Your task to perform on an android device: Open the Play Movies app and select the watchlist tab. Image 0: 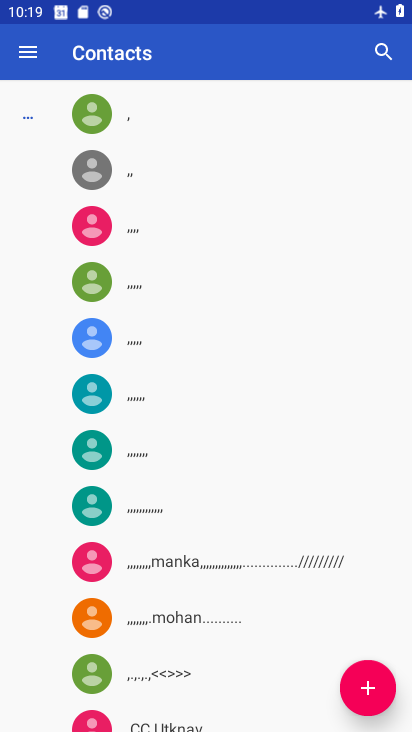
Step 0: drag from (155, 664) to (220, 270)
Your task to perform on an android device: Open the Play Movies app and select the watchlist tab. Image 1: 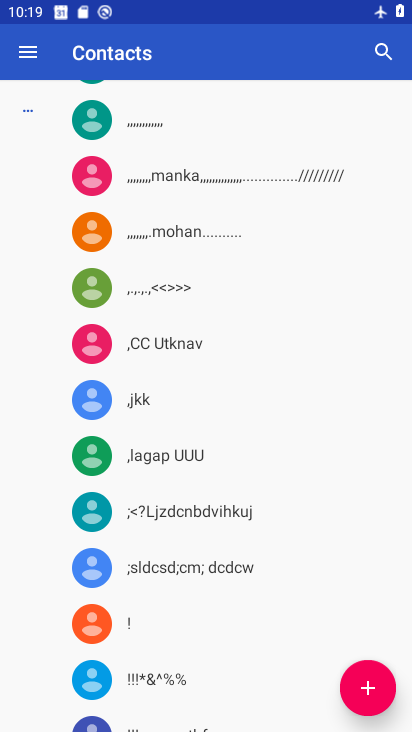
Step 1: press home button
Your task to perform on an android device: Open the Play Movies app and select the watchlist tab. Image 2: 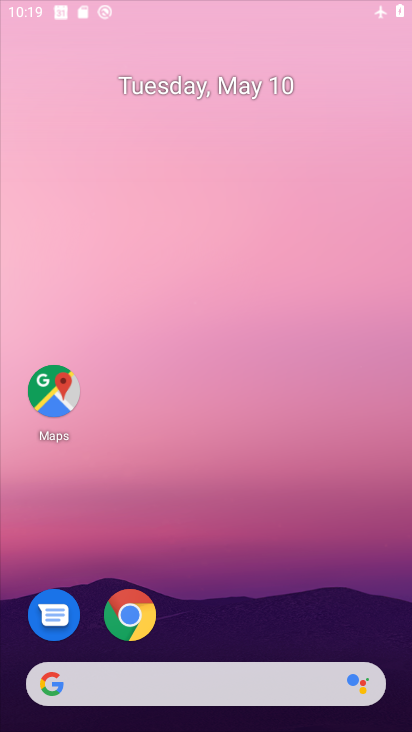
Step 2: drag from (210, 631) to (252, 299)
Your task to perform on an android device: Open the Play Movies app and select the watchlist tab. Image 3: 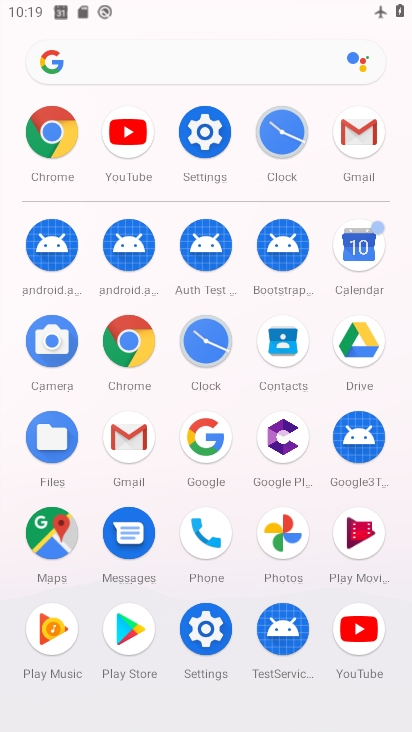
Step 3: drag from (246, 558) to (225, 286)
Your task to perform on an android device: Open the Play Movies app and select the watchlist tab. Image 4: 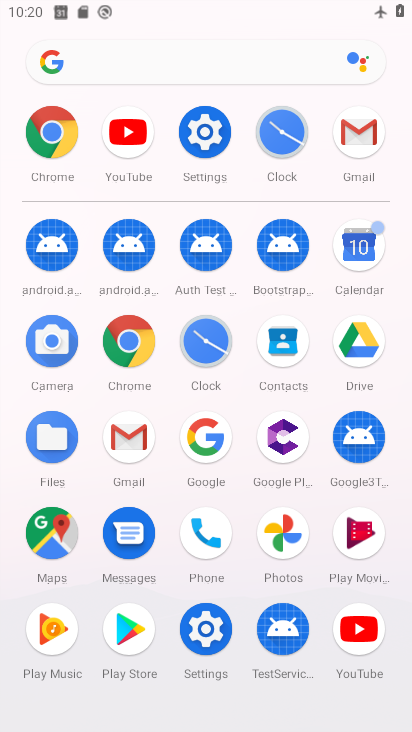
Step 4: click (353, 553)
Your task to perform on an android device: Open the Play Movies app and select the watchlist tab. Image 5: 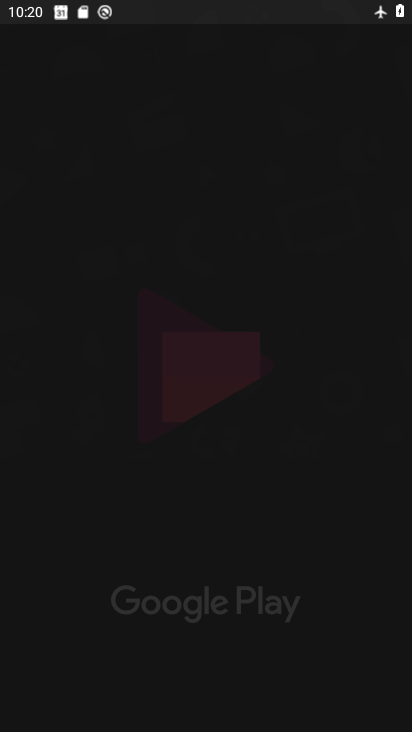
Step 5: drag from (213, 588) to (222, 171)
Your task to perform on an android device: Open the Play Movies app and select the watchlist tab. Image 6: 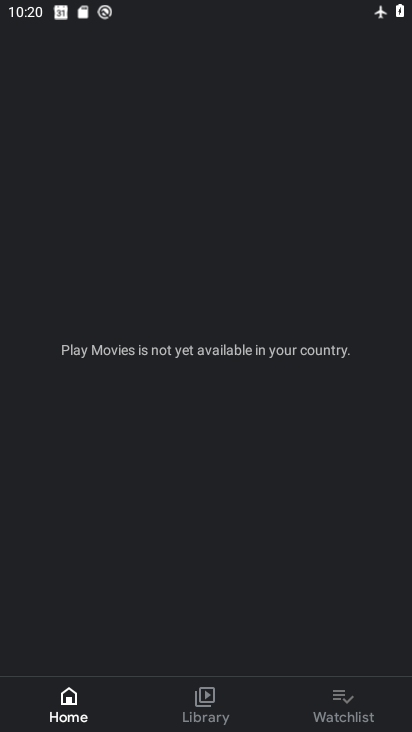
Step 6: click (353, 702)
Your task to perform on an android device: Open the Play Movies app and select the watchlist tab. Image 7: 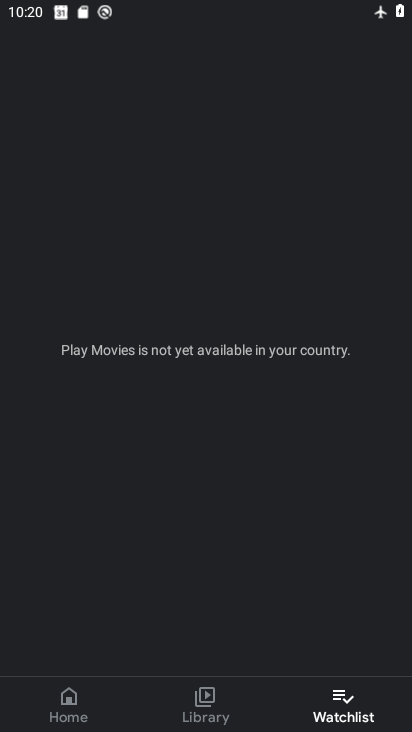
Step 7: task complete